Your task to perform on an android device: Open Wikipedia Image 0: 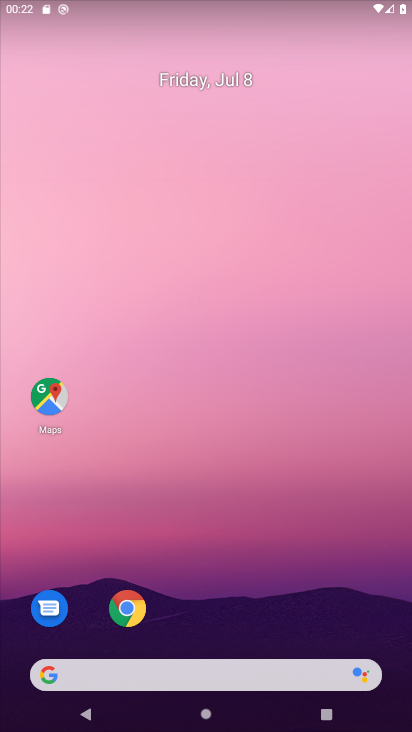
Step 0: drag from (165, 649) to (208, 12)
Your task to perform on an android device: Open Wikipedia Image 1: 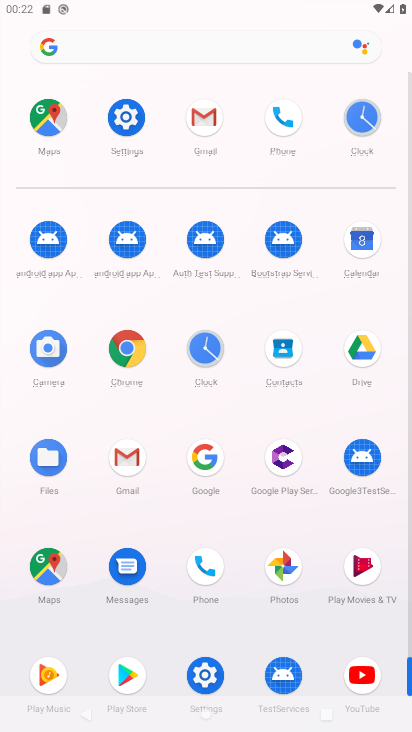
Step 1: click (125, 341)
Your task to perform on an android device: Open Wikipedia Image 2: 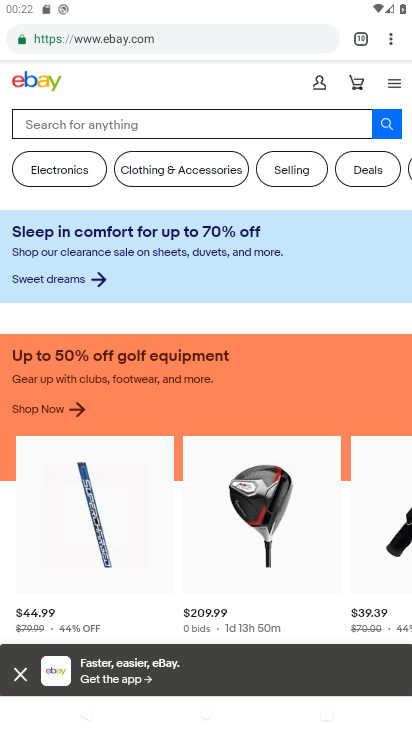
Step 2: click (387, 41)
Your task to perform on an android device: Open Wikipedia Image 3: 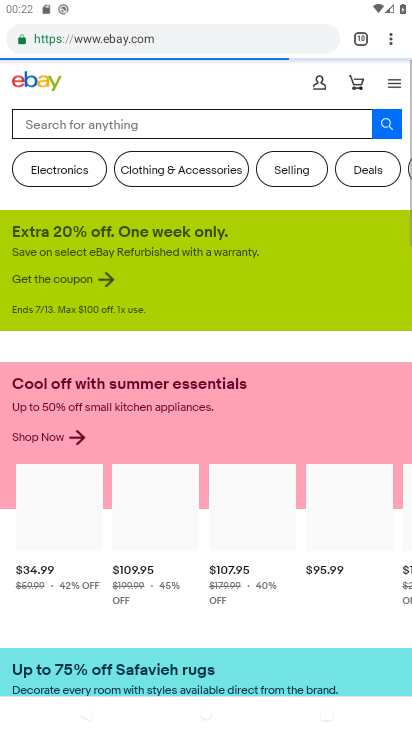
Step 3: click (395, 34)
Your task to perform on an android device: Open Wikipedia Image 4: 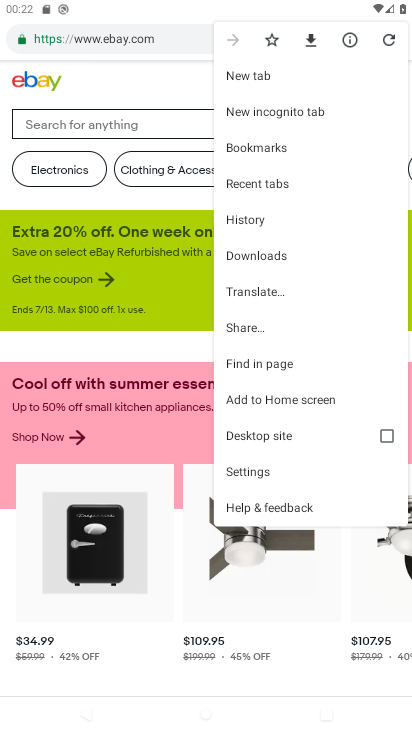
Step 4: click (279, 69)
Your task to perform on an android device: Open Wikipedia Image 5: 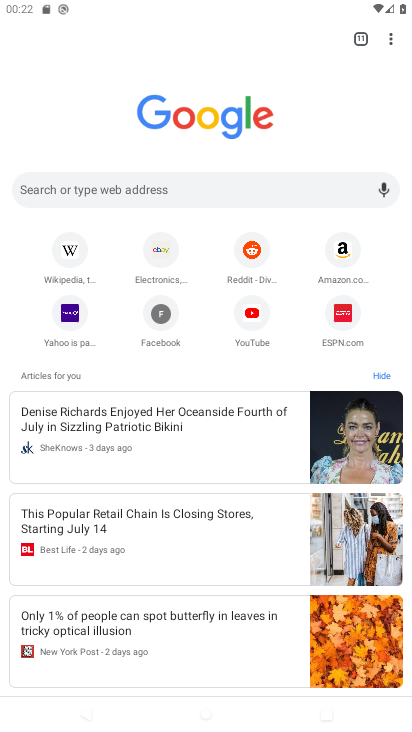
Step 5: click (59, 251)
Your task to perform on an android device: Open Wikipedia Image 6: 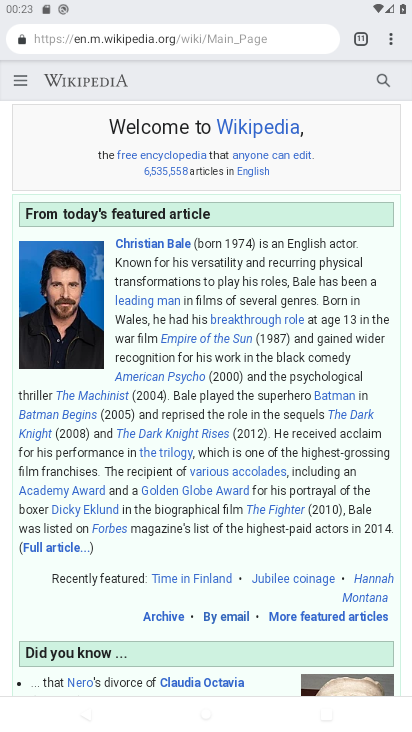
Step 6: task complete